Your task to perform on an android device: change the upload size in google photos Image 0: 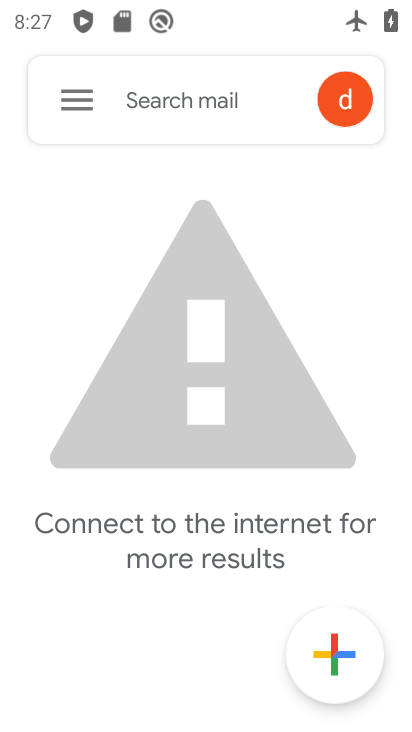
Step 0: press home button
Your task to perform on an android device: change the upload size in google photos Image 1: 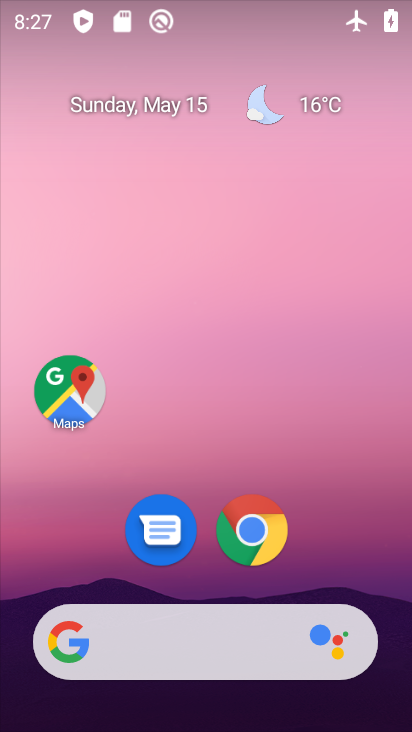
Step 1: drag from (208, 727) to (174, 85)
Your task to perform on an android device: change the upload size in google photos Image 2: 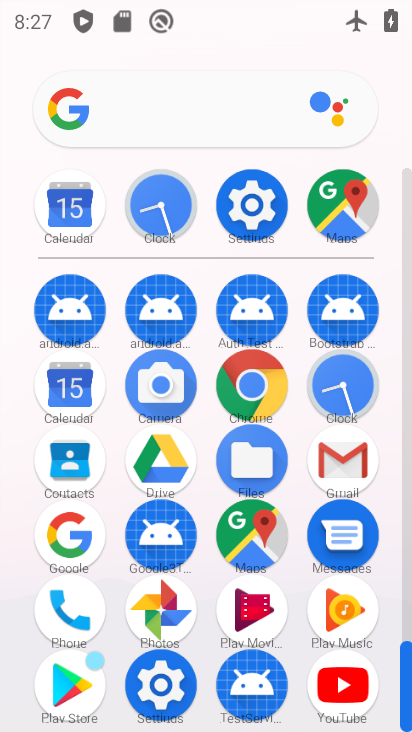
Step 2: click (173, 598)
Your task to perform on an android device: change the upload size in google photos Image 3: 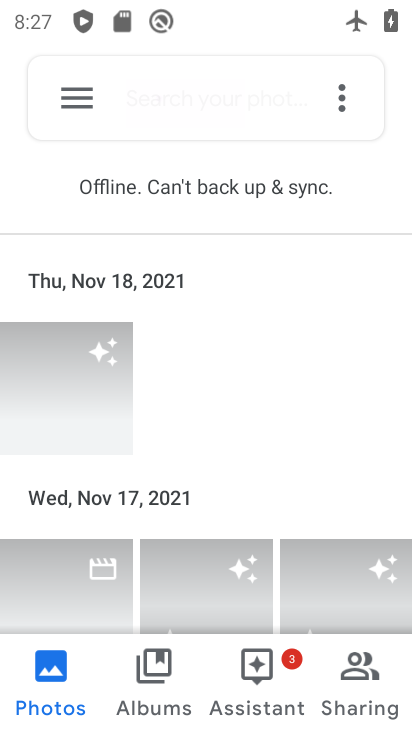
Step 3: click (69, 97)
Your task to perform on an android device: change the upload size in google photos Image 4: 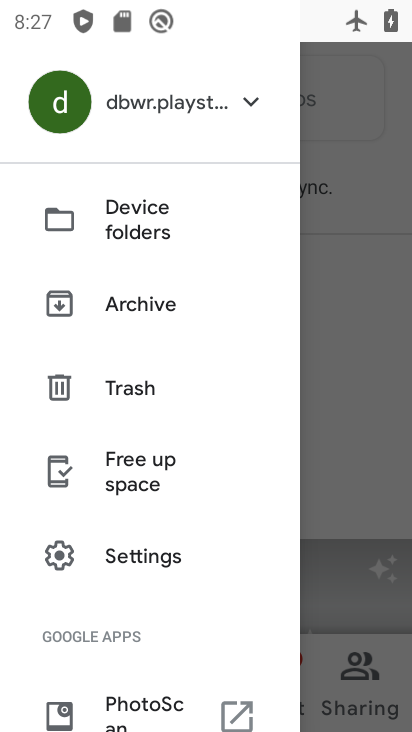
Step 4: click (123, 549)
Your task to perform on an android device: change the upload size in google photos Image 5: 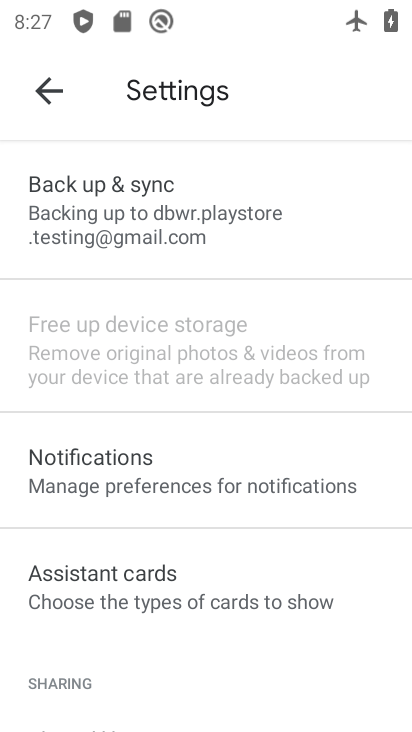
Step 5: drag from (96, 513) to (71, 156)
Your task to perform on an android device: change the upload size in google photos Image 6: 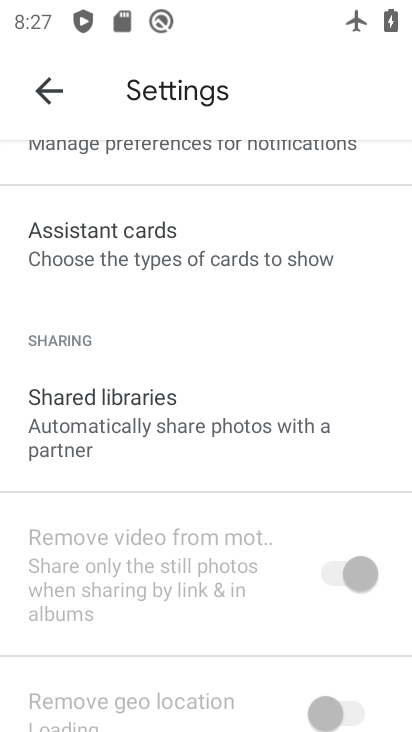
Step 6: drag from (185, 194) to (217, 508)
Your task to perform on an android device: change the upload size in google photos Image 7: 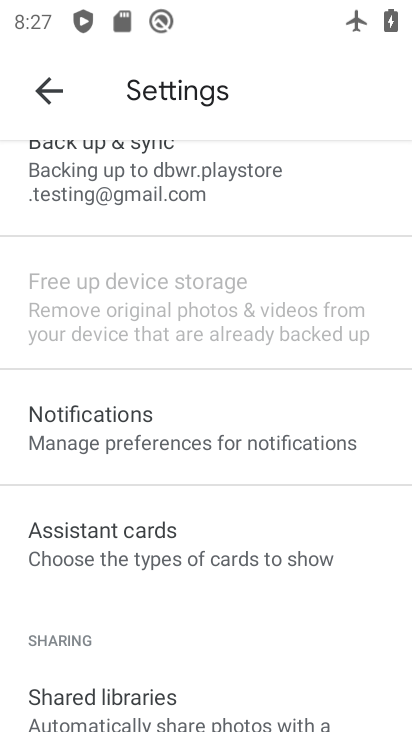
Step 7: click (158, 171)
Your task to perform on an android device: change the upload size in google photos Image 8: 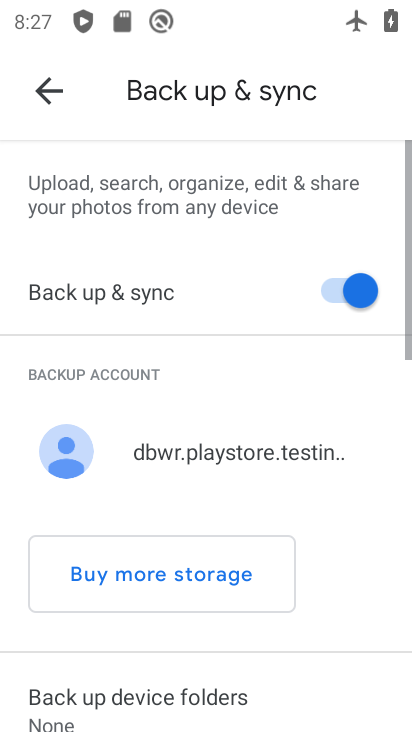
Step 8: click (165, 381)
Your task to perform on an android device: change the upload size in google photos Image 9: 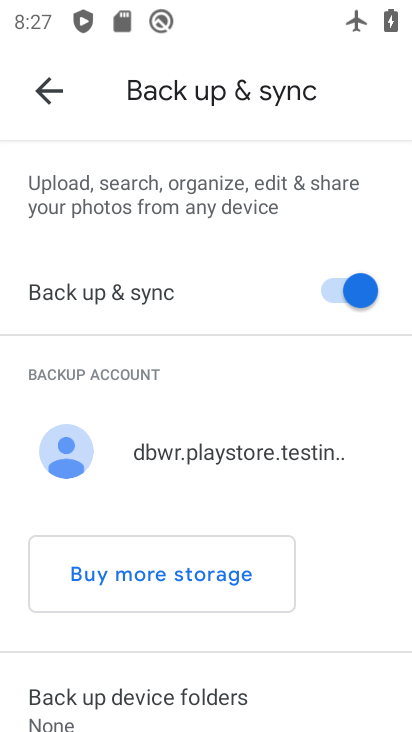
Step 9: drag from (158, 397) to (136, 223)
Your task to perform on an android device: change the upload size in google photos Image 10: 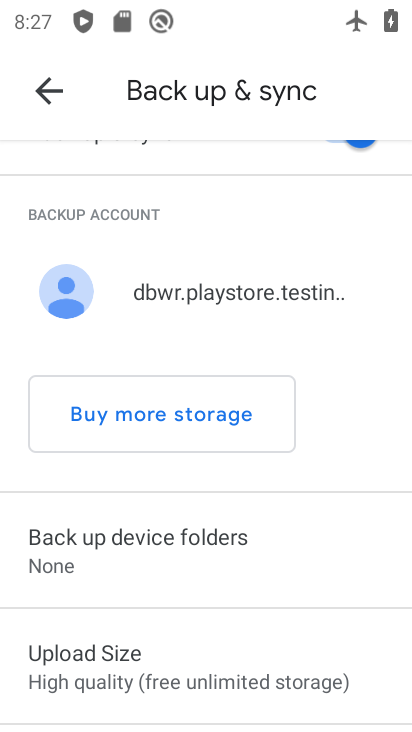
Step 10: click (147, 662)
Your task to perform on an android device: change the upload size in google photos Image 11: 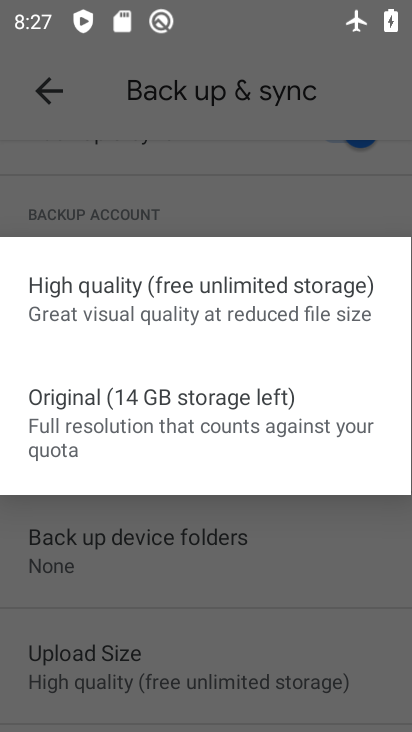
Step 11: click (84, 430)
Your task to perform on an android device: change the upload size in google photos Image 12: 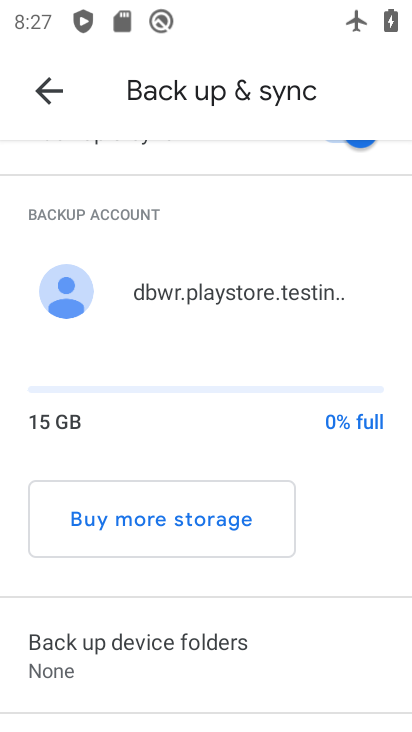
Step 12: task complete